Your task to perform on an android device: Go to Android settings Image 0: 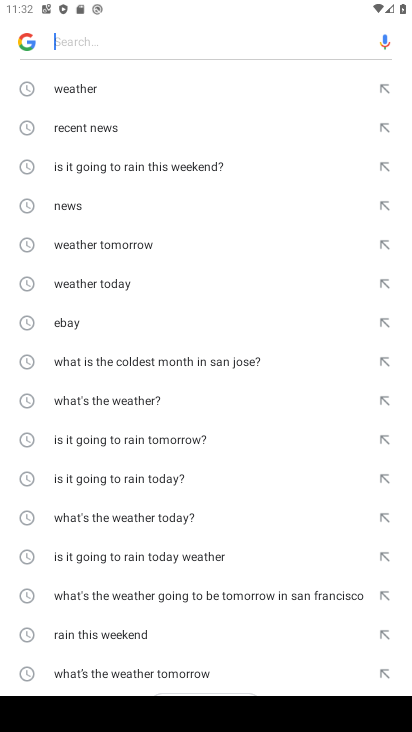
Step 0: press home button
Your task to perform on an android device: Go to Android settings Image 1: 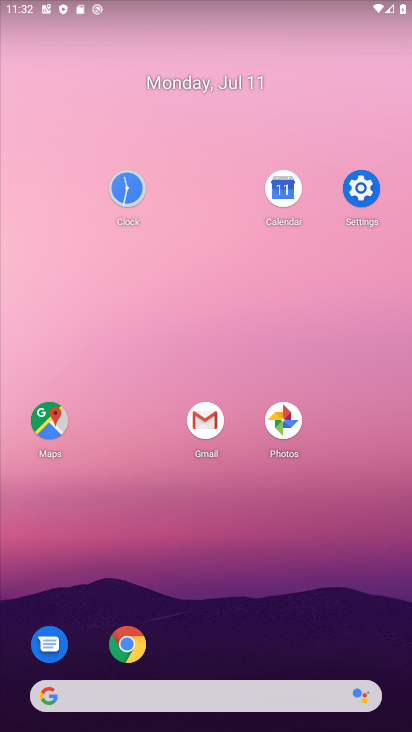
Step 1: click (352, 191)
Your task to perform on an android device: Go to Android settings Image 2: 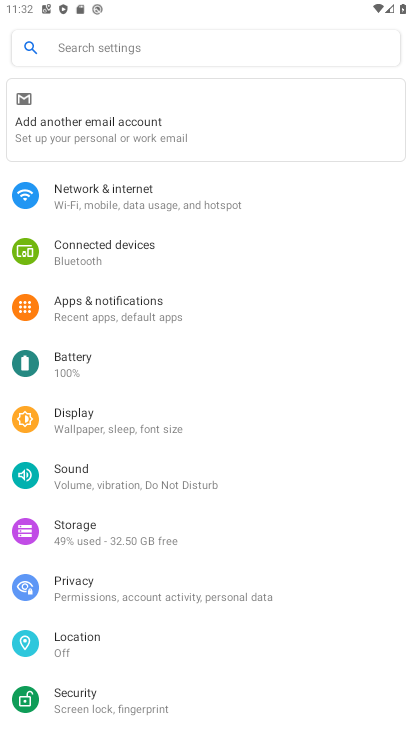
Step 2: task complete